Your task to perform on an android device: Do I have any events this weekend? Image 0: 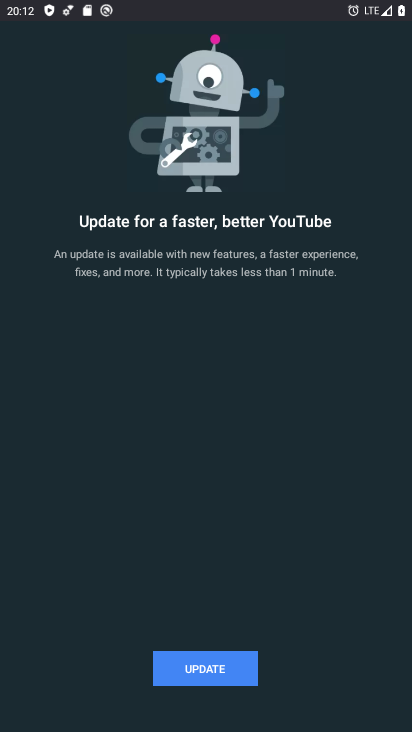
Step 0: press home button
Your task to perform on an android device: Do I have any events this weekend? Image 1: 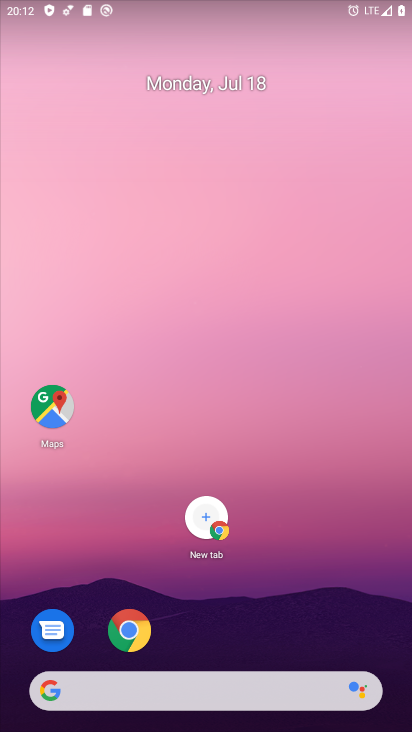
Step 1: drag from (203, 689) to (292, 273)
Your task to perform on an android device: Do I have any events this weekend? Image 2: 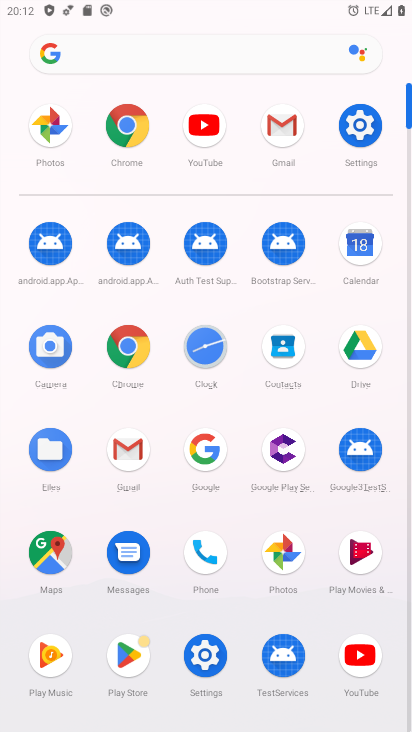
Step 2: drag from (255, 655) to (325, 369)
Your task to perform on an android device: Do I have any events this weekend? Image 3: 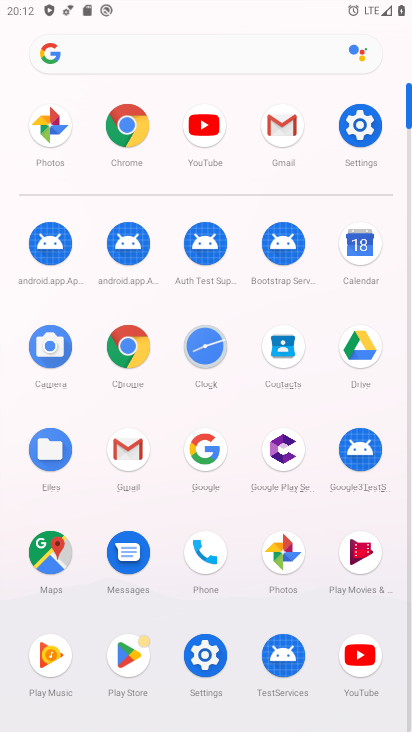
Step 3: click (372, 242)
Your task to perform on an android device: Do I have any events this weekend? Image 4: 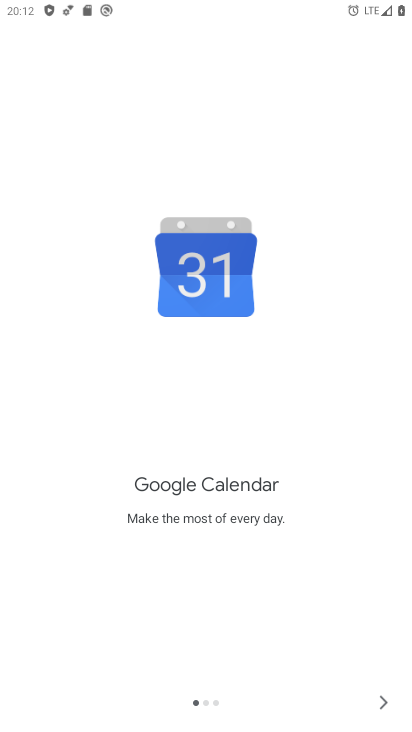
Step 4: click (396, 707)
Your task to perform on an android device: Do I have any events this weekend? Image 5: 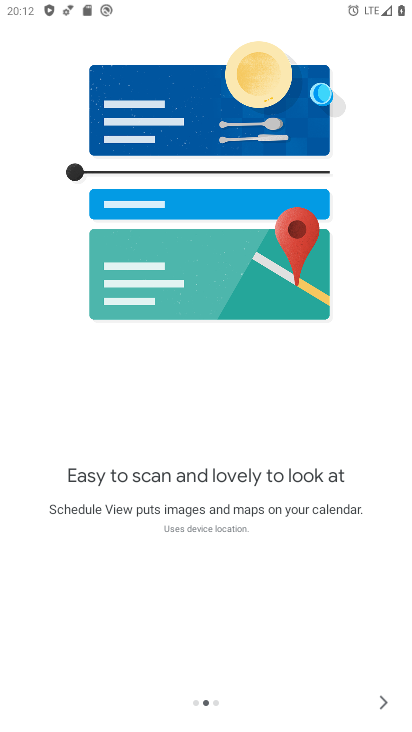
Step 5: click (395, 706)
Your task to perform on an android device: Do I have any events this weekend? Image 6: 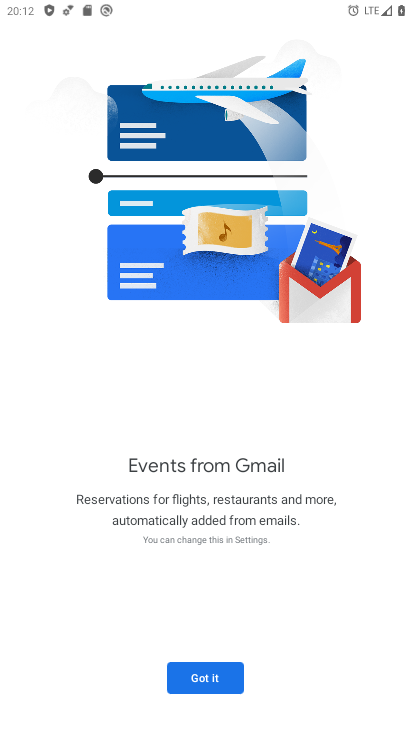
Step 6: click (217, 679)
Your task to perform on an android device: Do I have any events this weekend? Image 7: 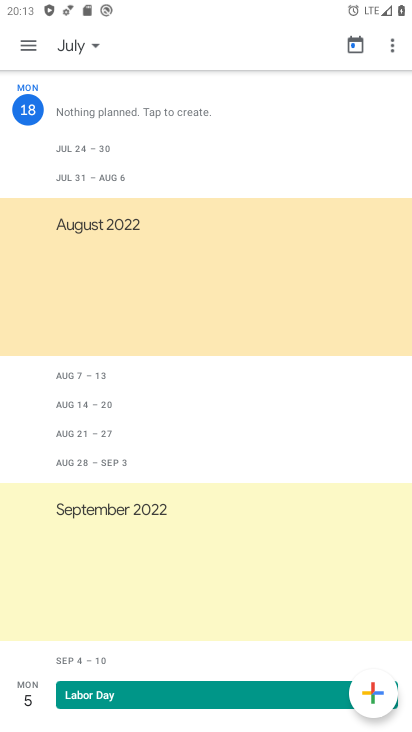
Step 7: click (79, 48)
Your task to perform on an android device: Do I have any events this weekend? Image 8: 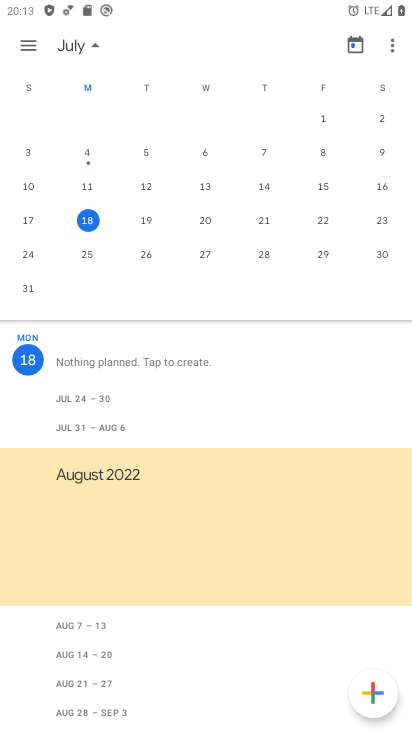
Step 8: click (330, 222)
Your task to perform on an android device: Do I have any events this weekend? Image 9: 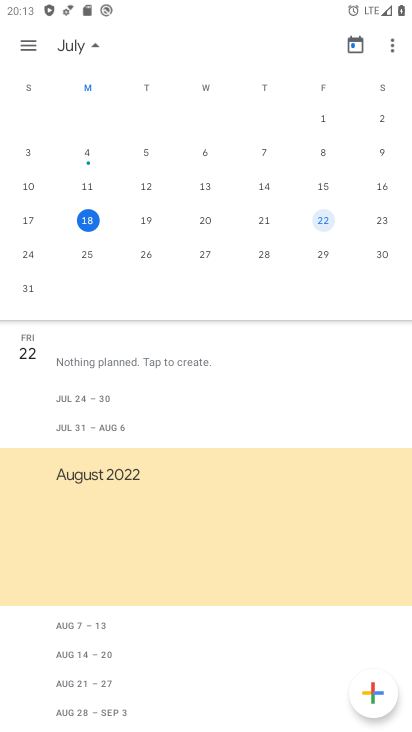
Step 9: click (384, 224)
Your task to perform on an android device: Do I have any events this weekend? Image 10: 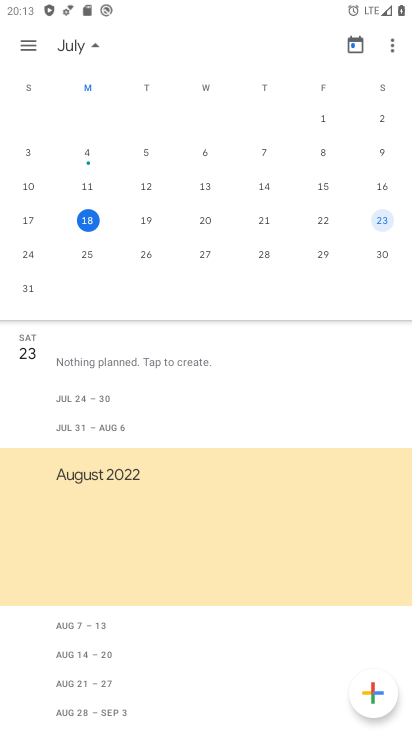
Step 10: task complete